Your task to perform on an android device: Turn off the flashlight Image 0: 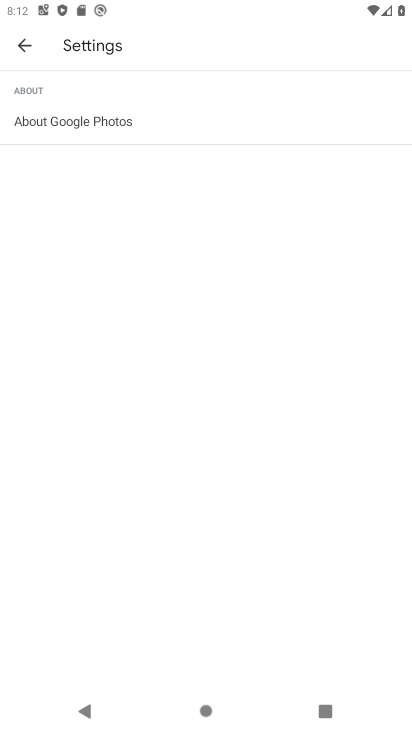
Step 0: drag from (184, 623) to (280, 287)
Your task to perform on an android device: Turn off the flashlight Image 1: 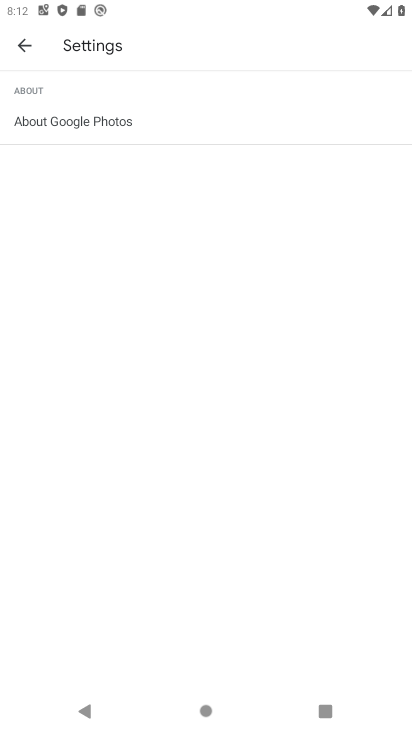
Step 1: press home button
Your task to perform on an android device: Turn off the flashlight Image 2: 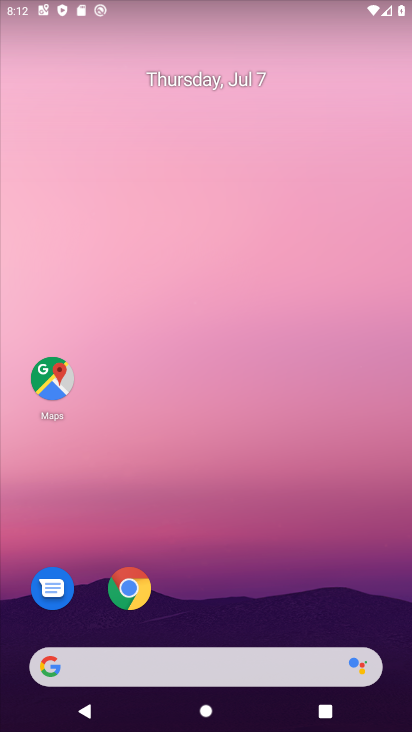
Step 2: drag from (197, 549) to (231, 293)
Your task to perform on an android device: Turn off the flashlight Image 3: 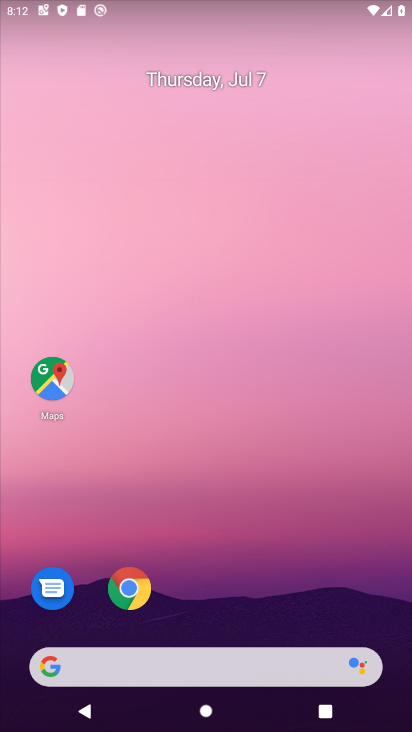
Step 3: drag from (221, 527) to (340, 119)
Your task to perform on an android device: Turn off the flashlight Image 4: 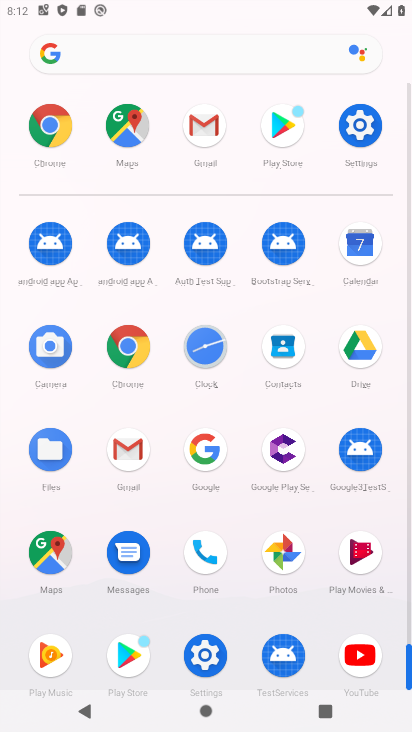
Step 4: click (345, 132)
Your task to perform on an android device: Turn off the flashlight Image 5: 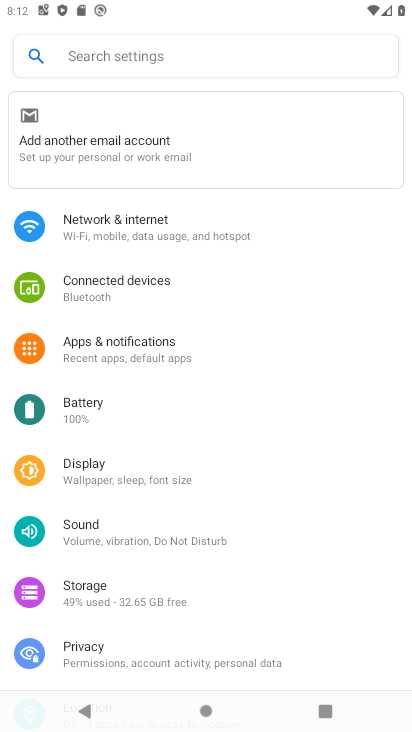
Step 5: drag from (141, 545) to (177, 315)
Your task to perform on an android device: Turn off the flashlight Image 6: 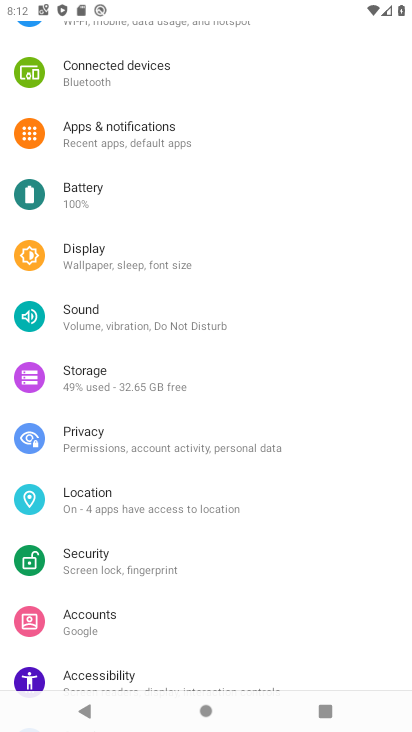
Step 6: drag from (168, 306) to (248, 729)
Your task to perform on an android device: Turn off the flashlight Image 7: 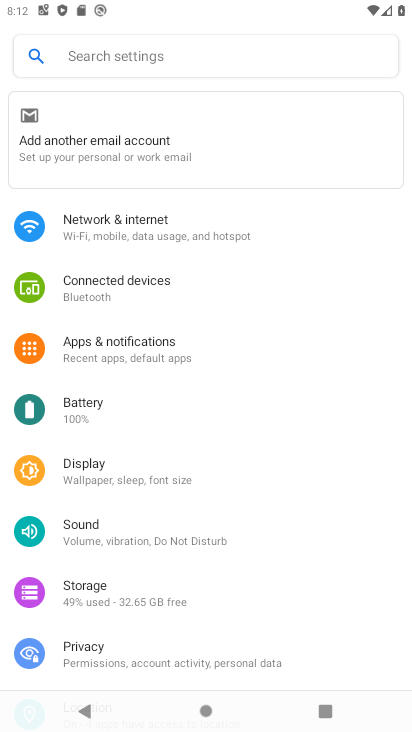
Step 7: click (133, 82)
Your task to perform on an android device: Turn off the flashlight Image 8: 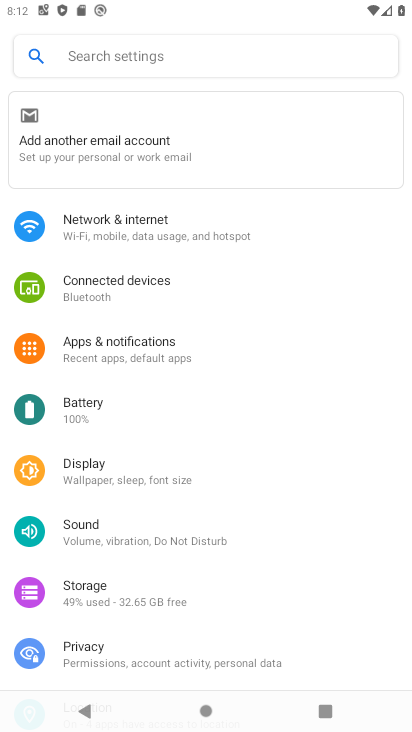
Step 8: click (129, 56)
Your task to perform on an android device: Turn off the flashlight Image 9: 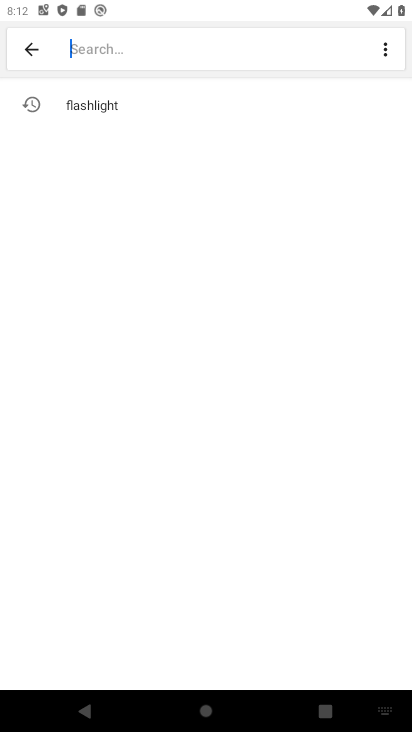
Step 9: click (369, 451)
Your task to perform on an android device: Turn off the flashlight Image 10: 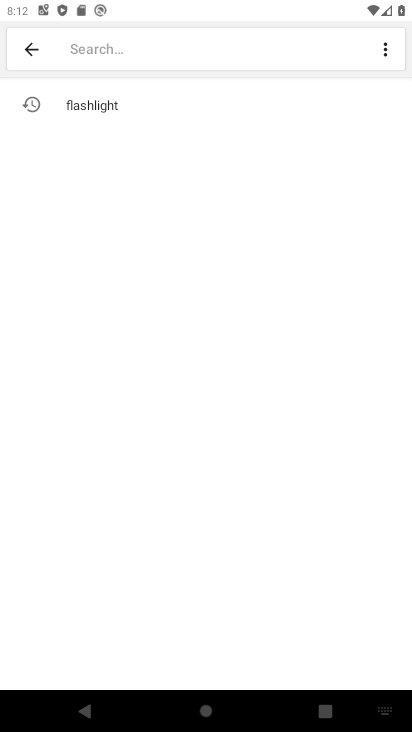
Step 10: click (119, 108)
Your task to perform on an android device: Turn off the flashlight Image 11: 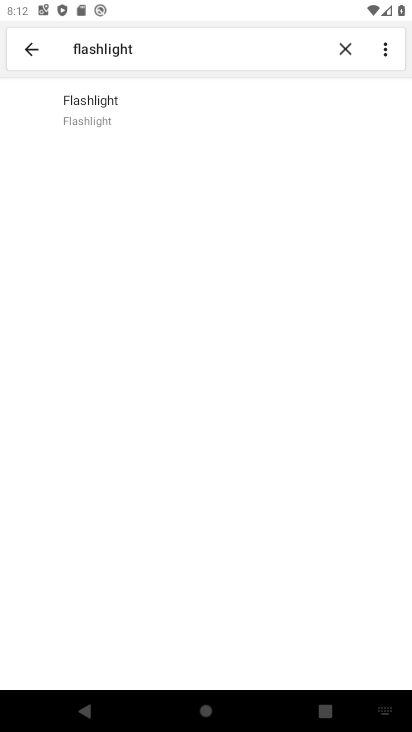
Step 11: click (111, 132)
Your task to perform on an android device: Turn off the flashlight Image 12: 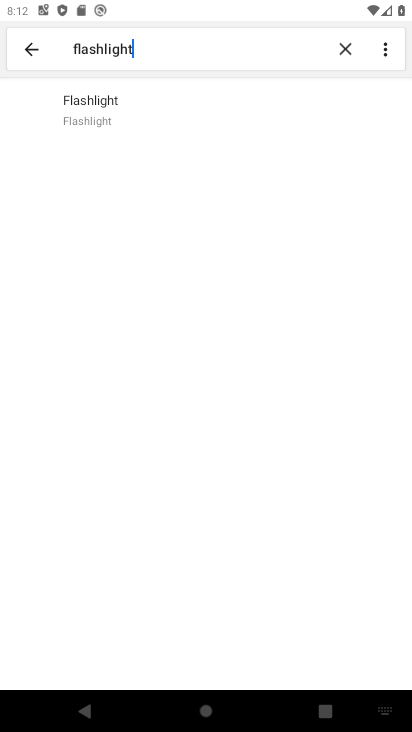
Step 12: click (114, 115)
Your task to perform on an android device: Turn off the flashlight Image 13: 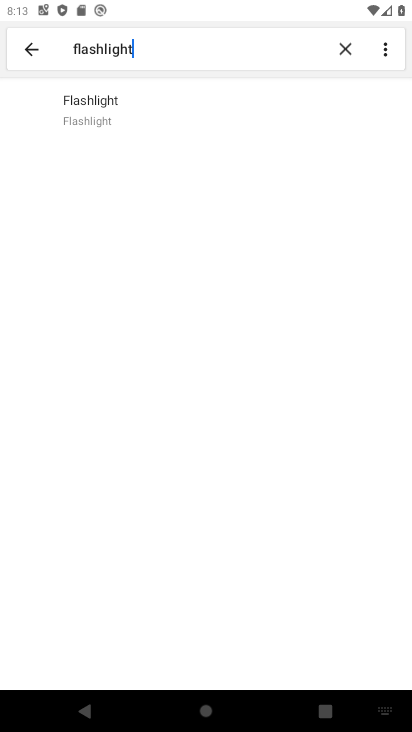
Step 13: click (77, 110)
Your task to perform on an android device: Turn off the flashlight Image 14: 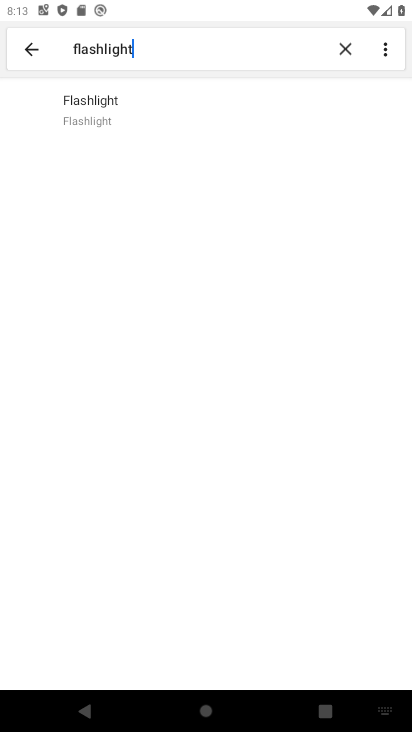
Step 14: click (77, 110)
Your task to perform on an android device: Turn off the flashlight Image 15: 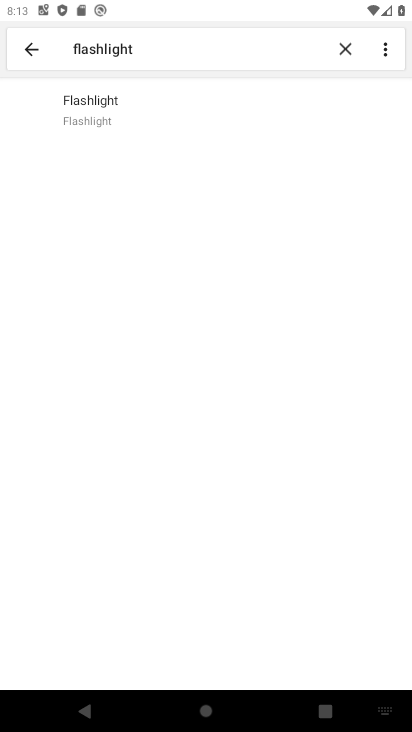
Step 15: drag from (209, 477) to (222, 174)
Your task to perform on an android device: Turn off the flashlight Image 16: 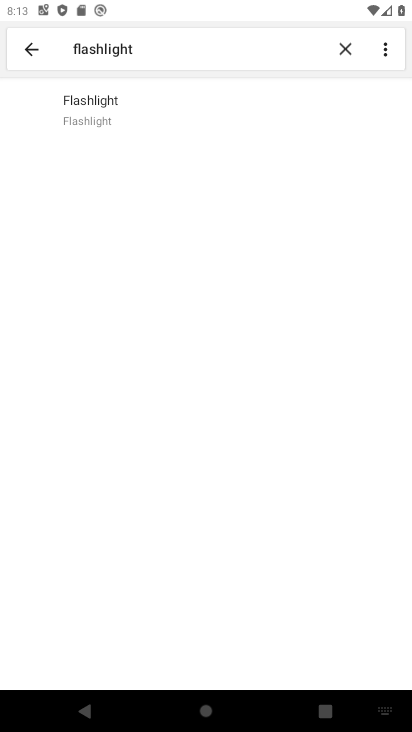
Step 16: drag from (162, 580) to (179, 260)
Your task to perform on an android device: Turn off the flashlight Image 17: 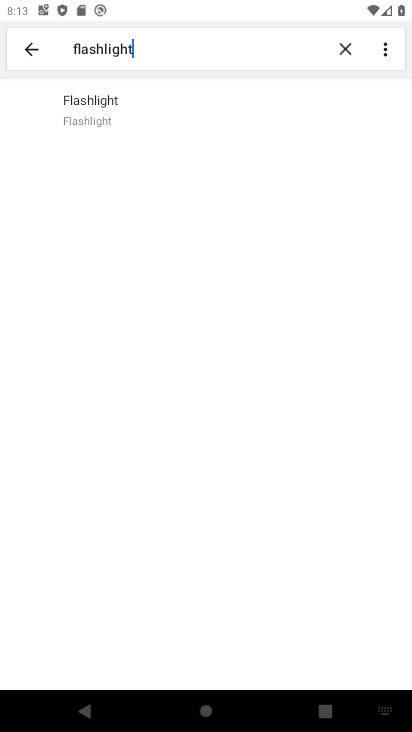
Step 17: click (81, 111)
Your task to perform on an android device: Turn off the flashlight Image 18: 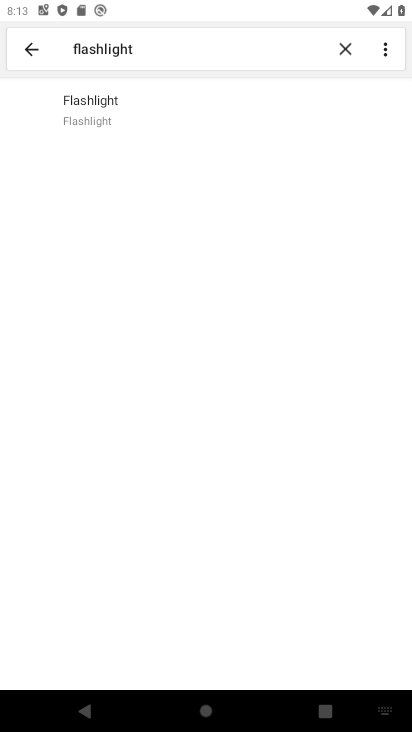
Step 18: task complete